Your task to perform on an android device: Open Amazon Image 0: 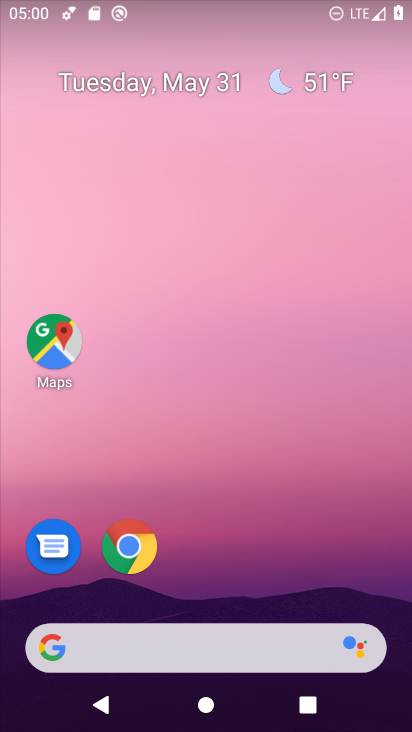
Step 0: click (135, 540)
Your task to perform on an android device: Open Amazon Image 1: 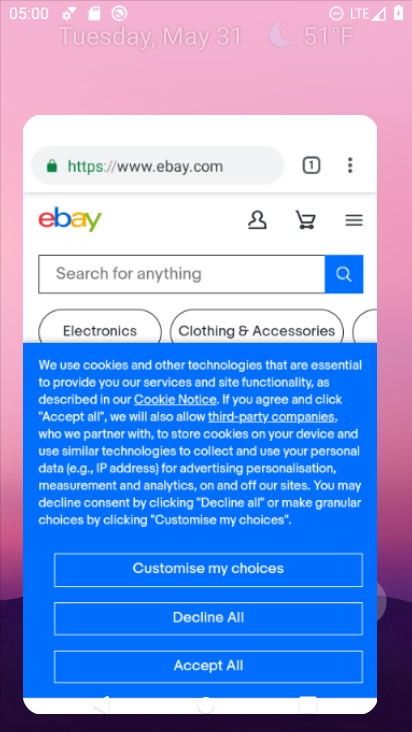
Step 1: click (135, 548)
Your task to perform on an android device: Open Amazon Image 2: 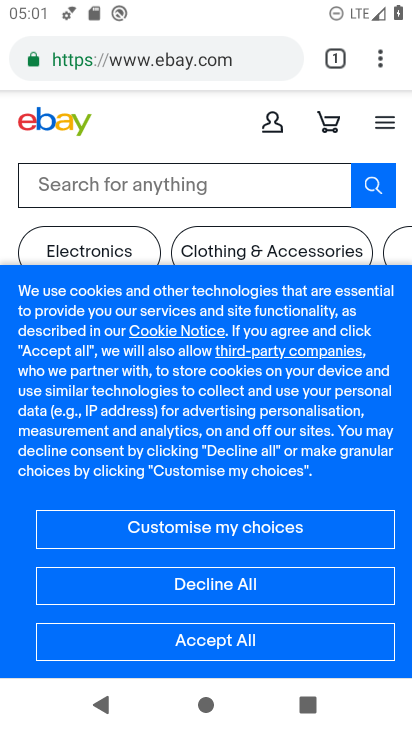
Step 2: click (152, 63)
Your task to perform on an android device: Open Amazon Image 3: 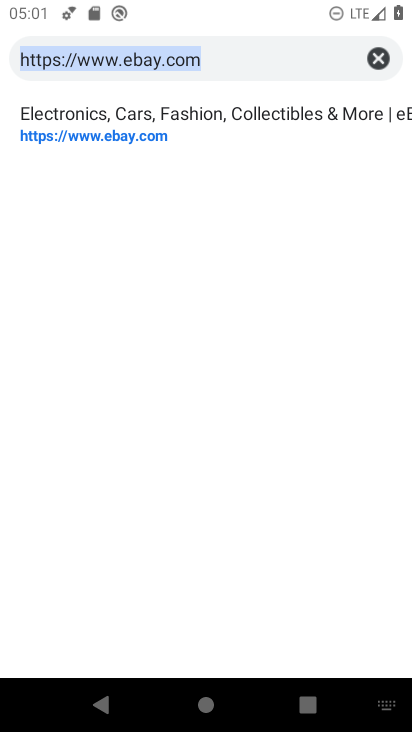
Step 3: type "www.amazon.com"
Your task to perform on an android device: Open Amazon Image 4: 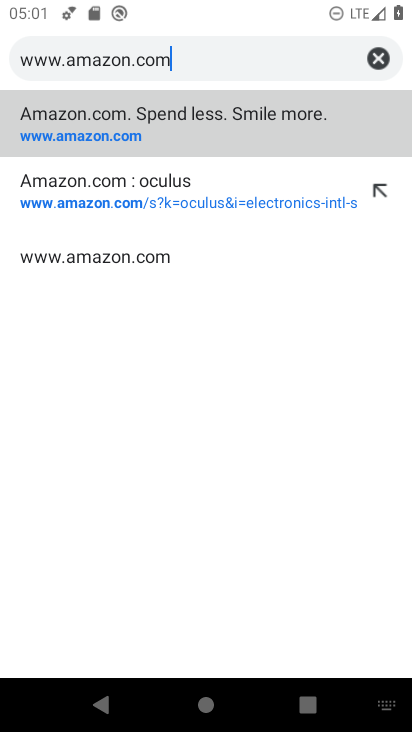
Step 4: click (100, 127)
Your task to perform on an android device: Open Amazon Image 5: 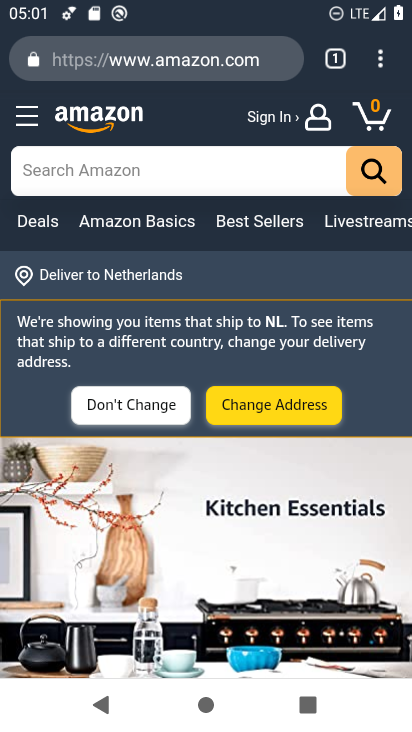
Step 5: task complete